Your task to perform on an android device: toggle pop-ups in chrome Image 0: 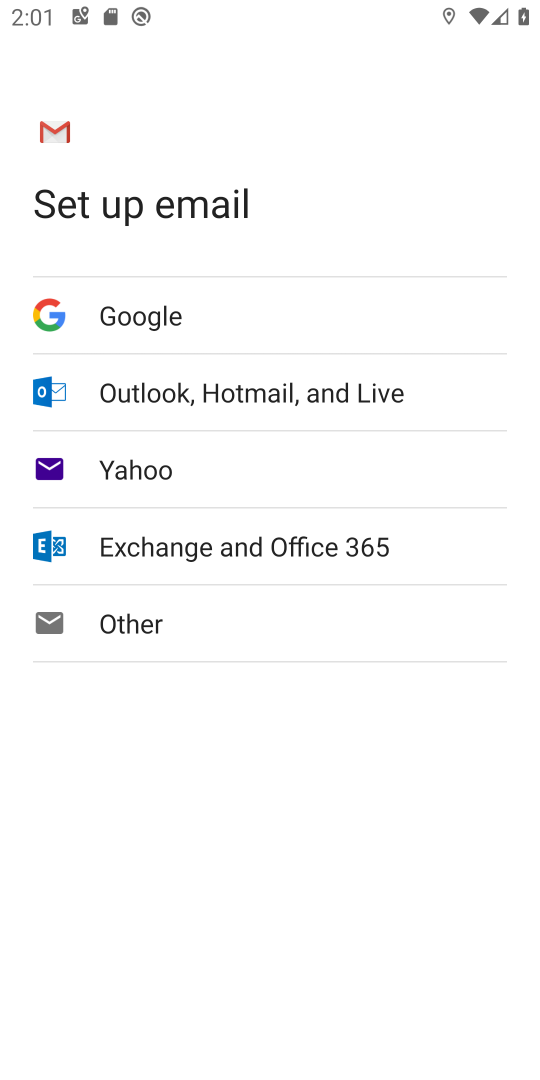
Step 0: press home button
Your task to perform on an android device: toggle pop-ups in chrome Image 1: 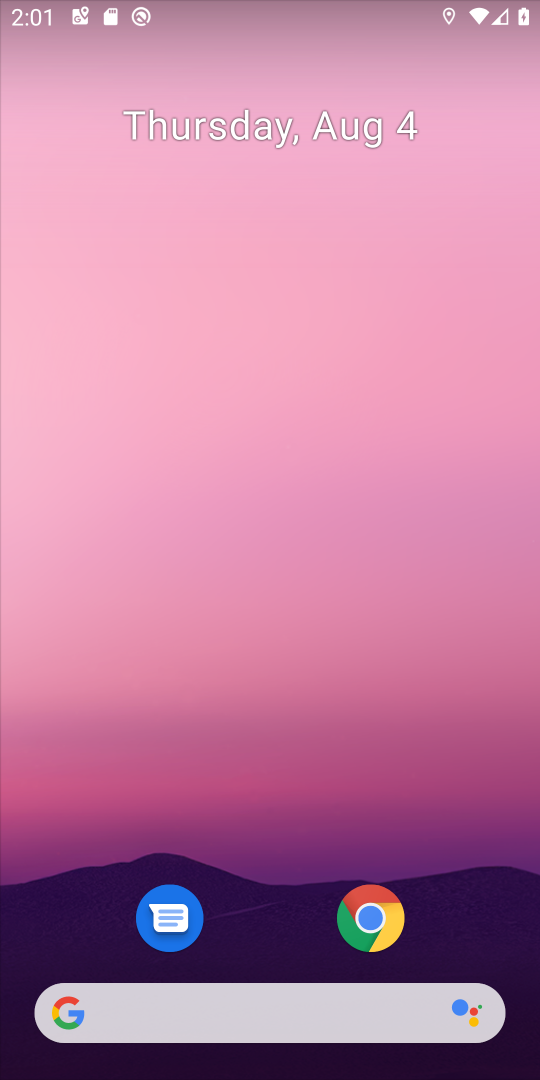
Step 1: drag from (357, 915) to (307, 915)
Your task to perform on an android device: toggle pop-ups in chrome Image 2: 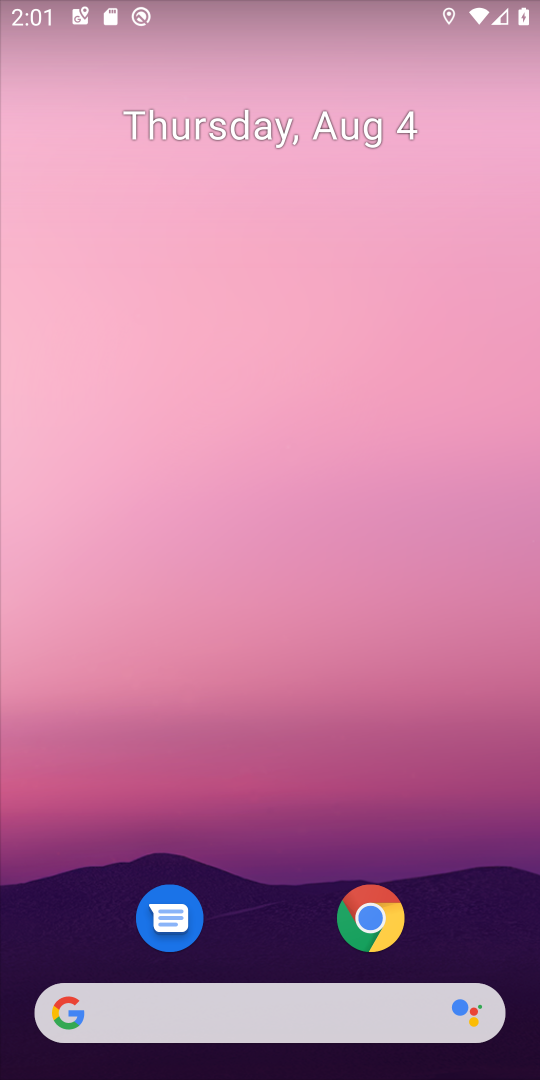
Step 2: click (388, 912)
Your task to perform on an android device: toggle pop-ups in chrome Image 3: 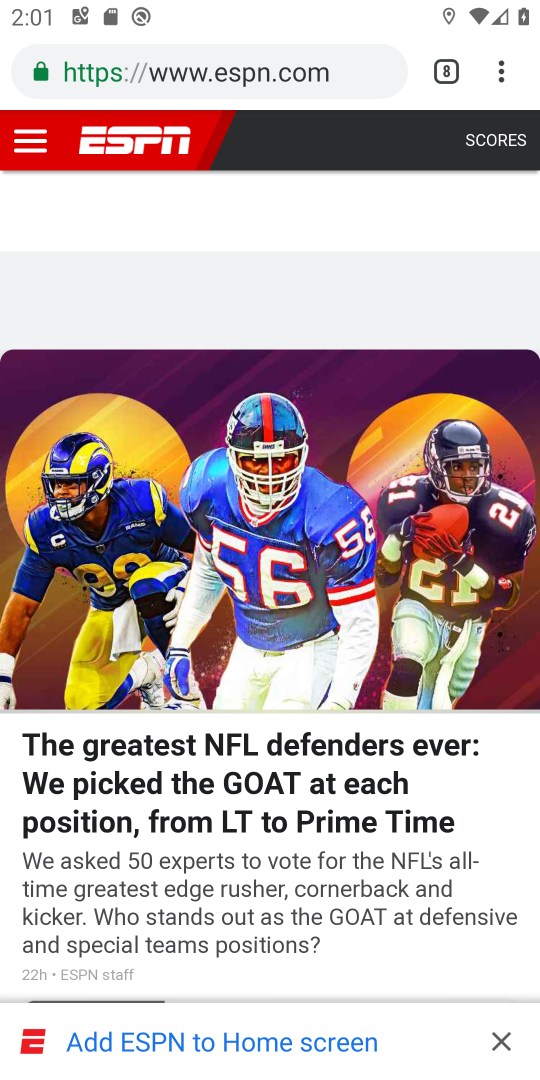
Step 3: click (497, 86)
Your task to perform on an android device: toggle pop-ups in chrome Image 4: 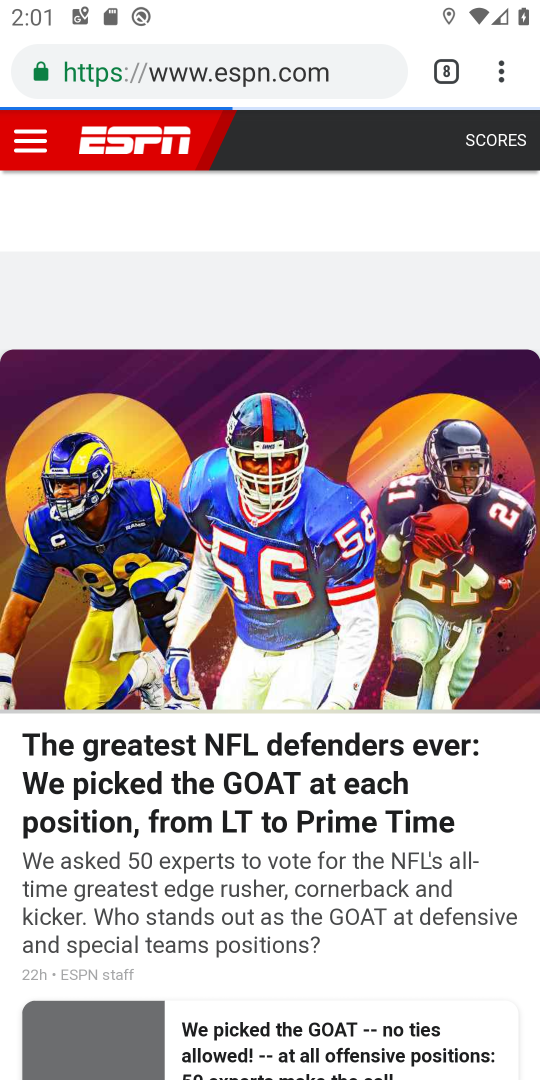
Step 4: drag from (493, 63) to (310, 843)
Your task to perform on an android device: toggle pop-ups in chrome Image 5: 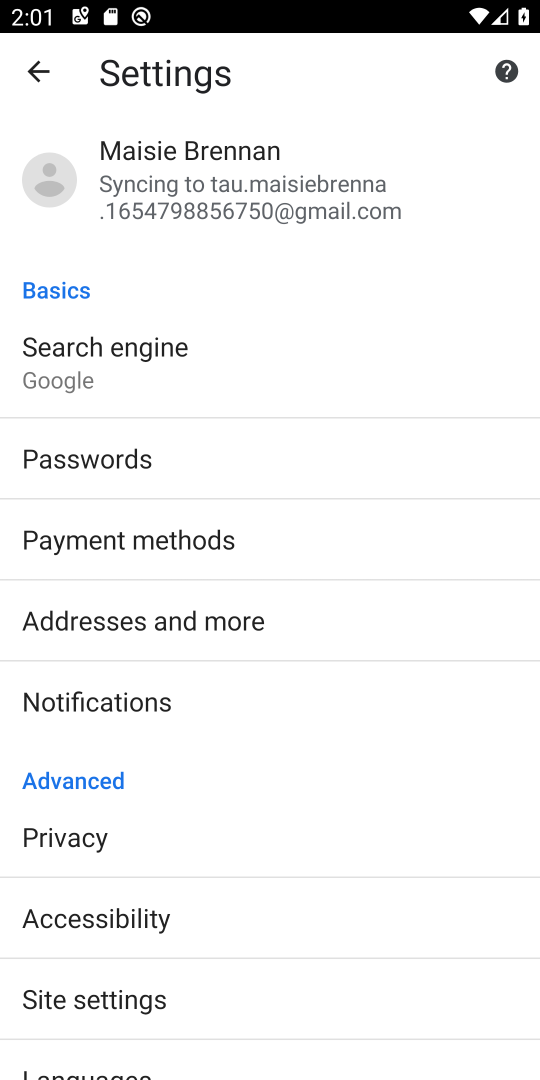
Step 5: drag from (279, 906) to (271, 522)
Your task to perform on an android device: toggle pop-ups in chrome Image 6: 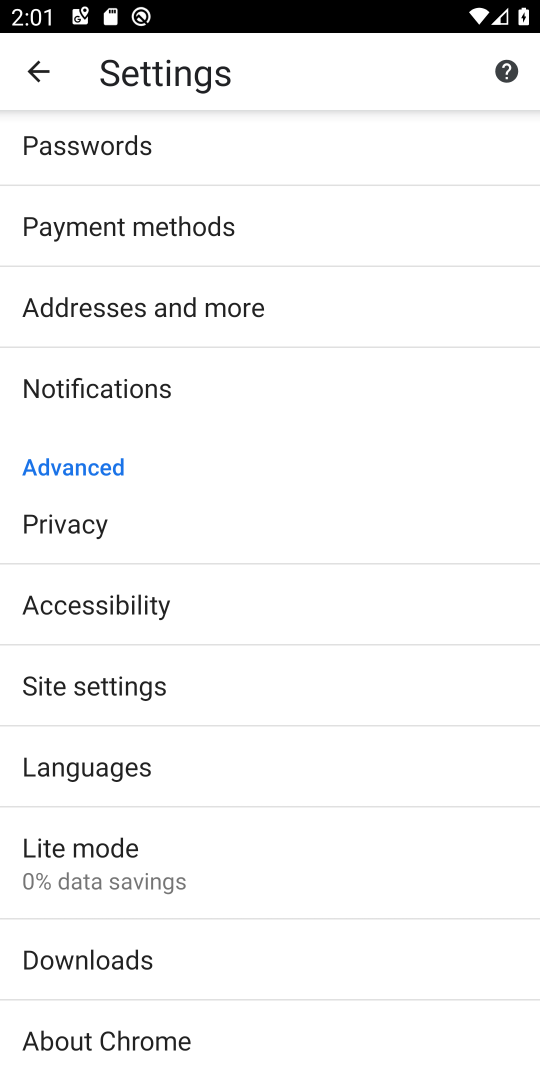
Step 6: click (156, 703)
Your task to perform on an android device: toggle pop-ups in chrome Image 7: 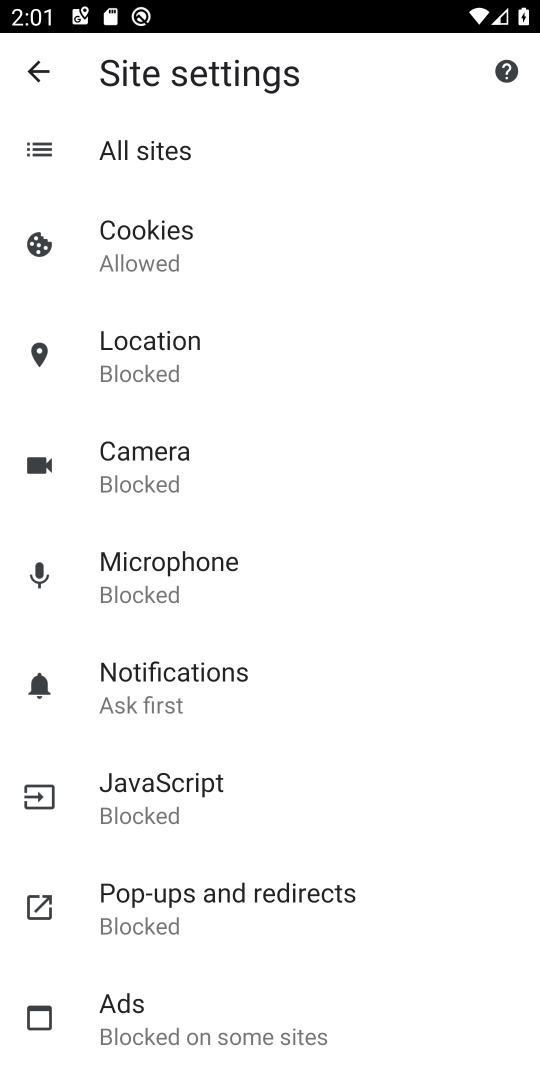
Step 7: click (239, 934)
Your task to perform on an android device: toggle pop-ups in chrome Image 8: 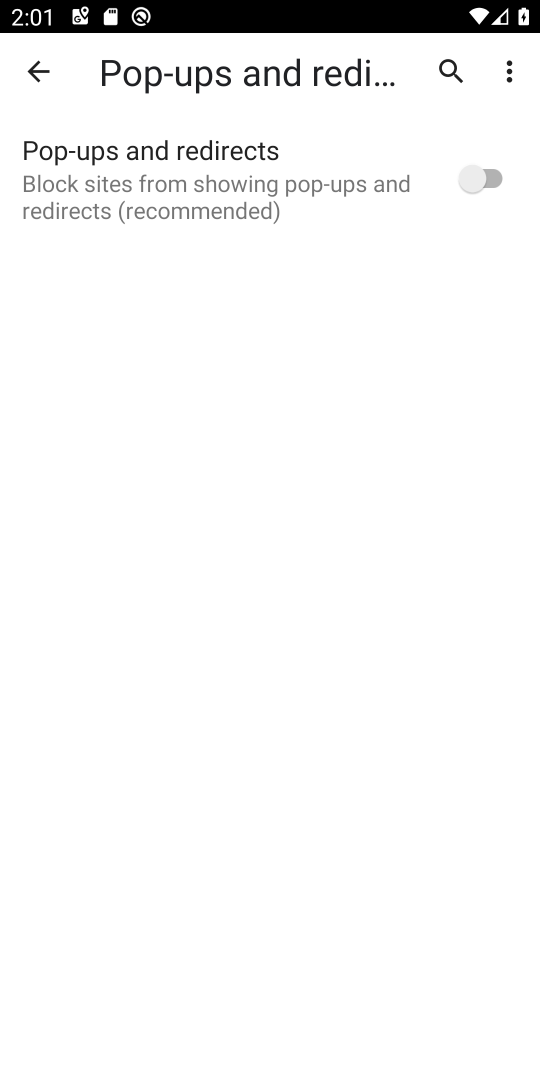
Step 8: click (480, 178)
Your task to perform on an android device: toggle pop-ups in chrome Image 9: 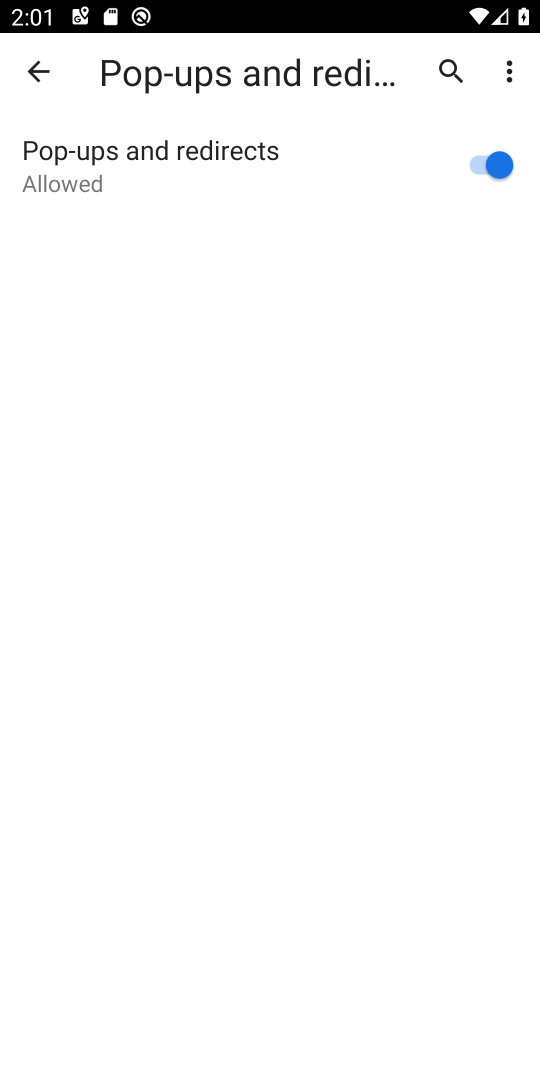
Step 9: task complete